Your task to perform on an android device: turn on showing notifications on the lock screen Image 0: 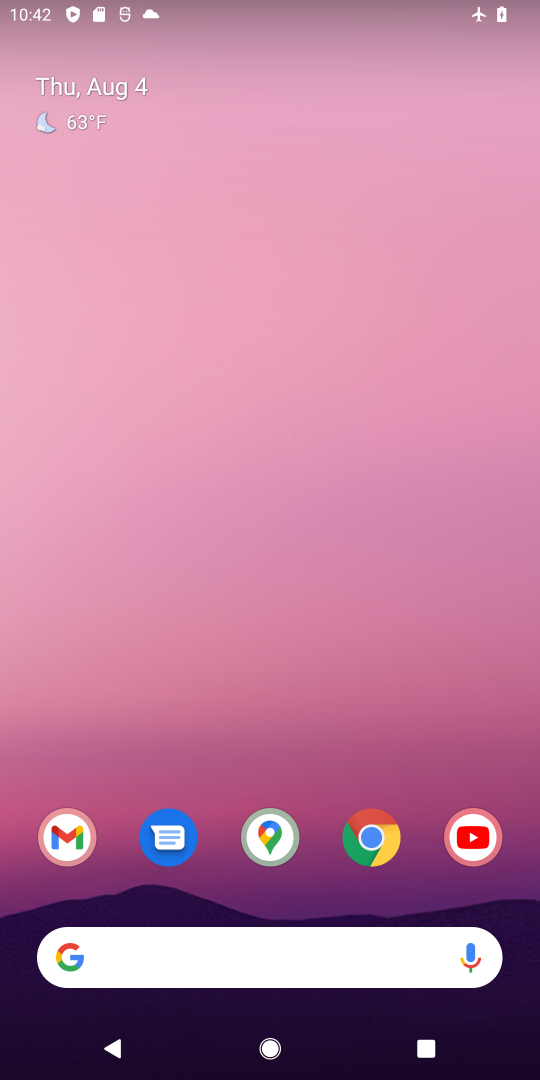
Step 0: drag from (186, 913) to (311, 127)
Your task to perform on an android device: turn on showing notifications on the lock screen Image 1: 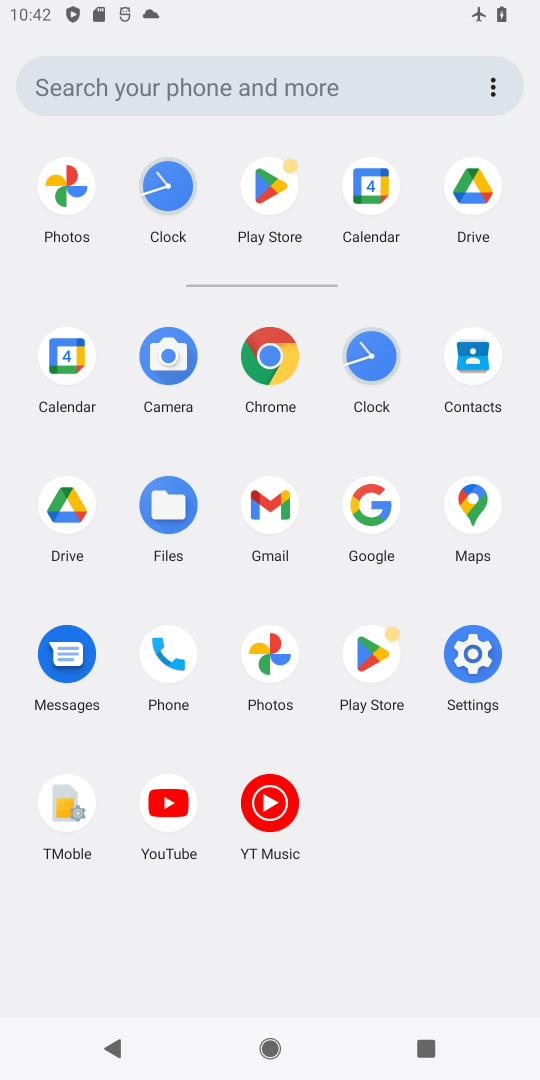
Step 1: click (471, 657)
Your task to perform on an android device: turn on showing notifications on the lock screen Image 2: 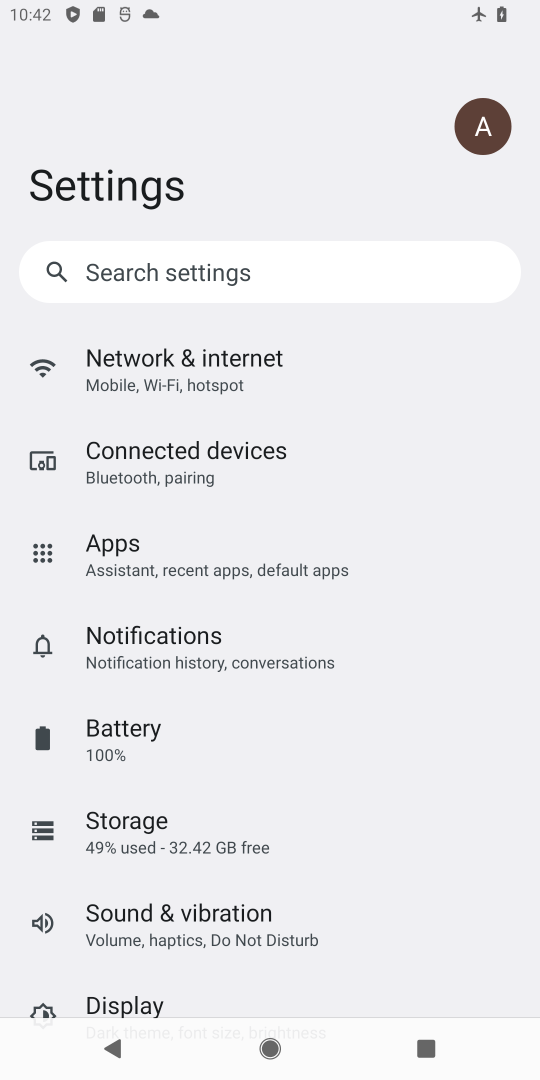
Step 2: click (205, 648)
Your task to perform on an android device: turn on showing notifications on the lock screen Image 3: 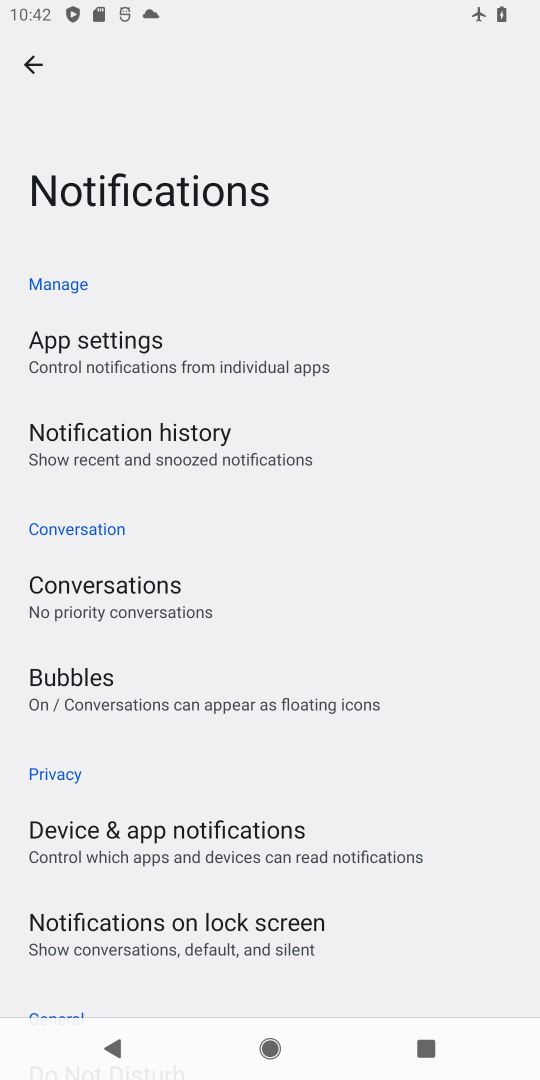
Step 3: click (172, 351)
Your task to perform on an android device: turn on showing notifications on the lock screen Image 4: 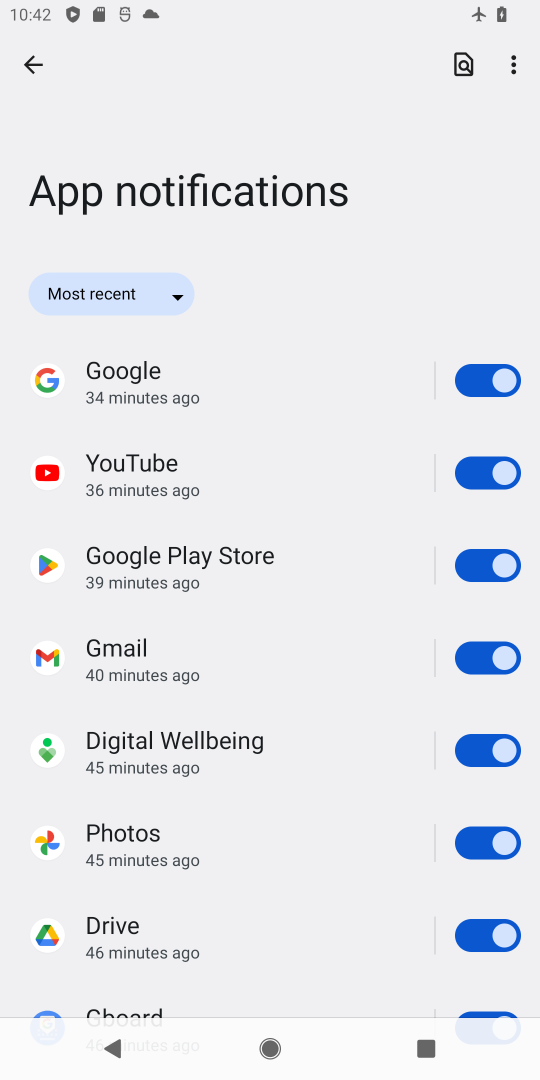
Step 4: drag from (205, 900) to (276, 241)
Your task to perform on an android device: turn on showing notifications on the lock screen Image 5: 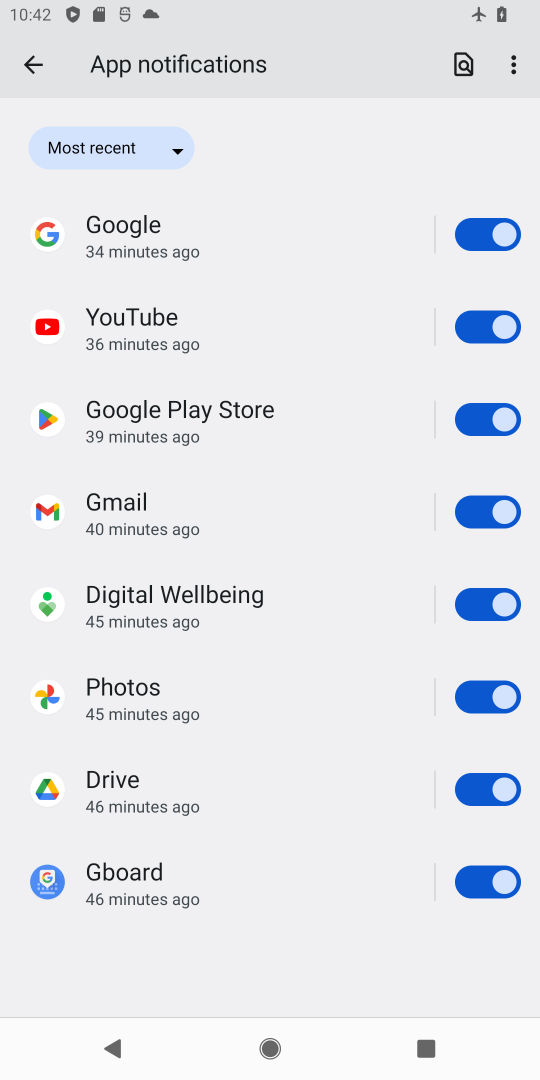
Step 5: click (36, 62)
Your task to perform on an android device: turn on showing notifications on the lock screen Image 6: 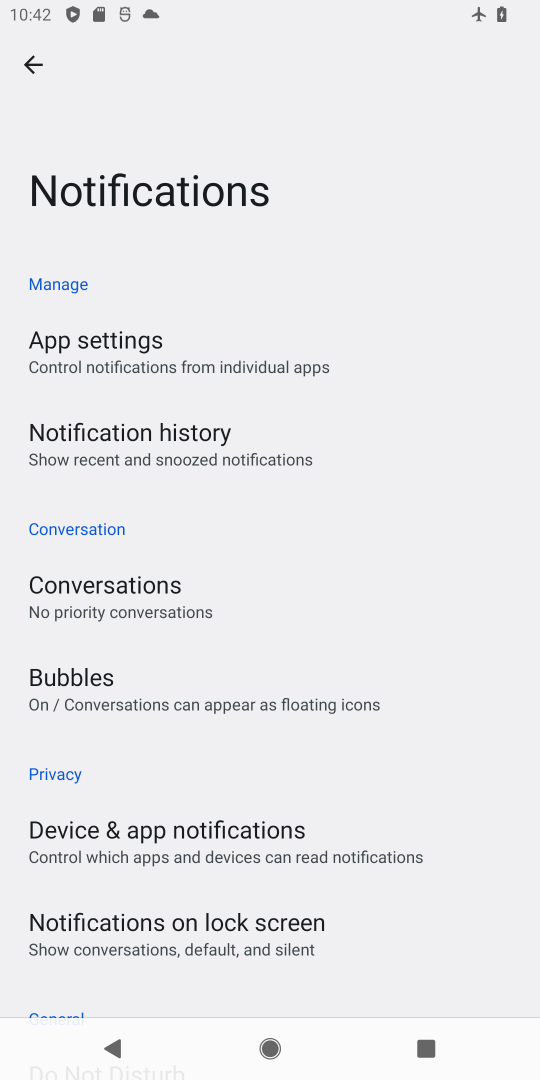
Step 6: click (234, 921)
Your task to perform on an android device: turn on showing notifications on the lock screen Image 7: 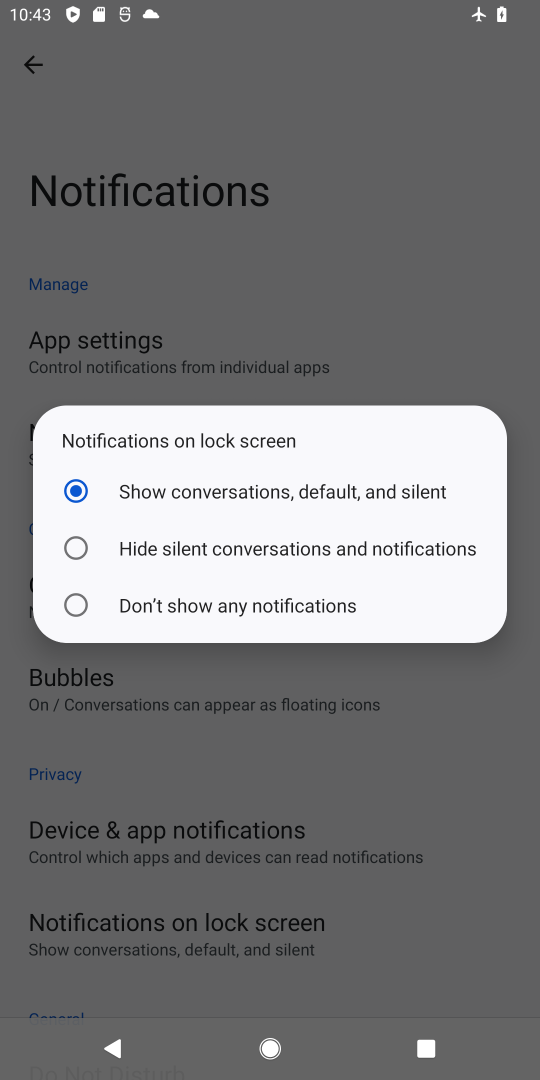
Step 7: task complete